Your task to perform on an android device: search for starred emails in the gmail app Image 0: 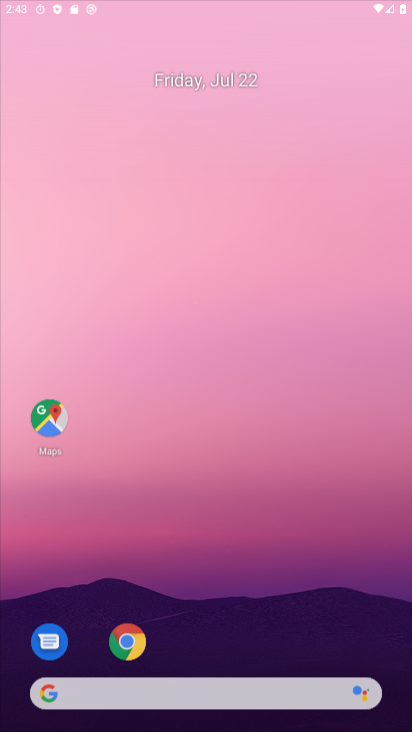
Step 0: press home button
Your task to perform on an android device: search for starred emails in the gmail app Image 1: 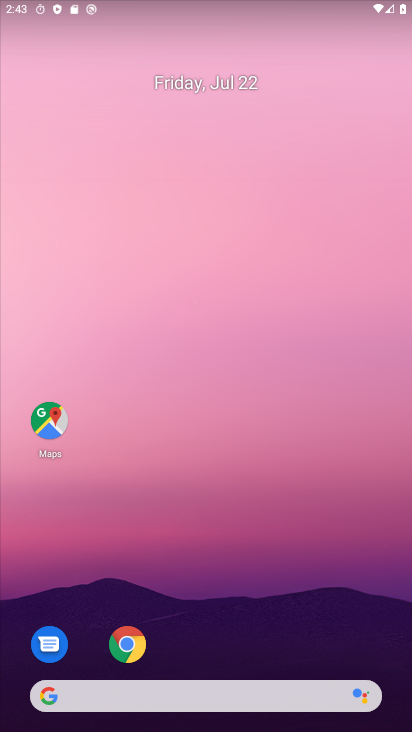
Step 1: drag from (258, 644) to (282, 93)
Your task to perform on an android device: search for starred emails in the gmail app Image 2: 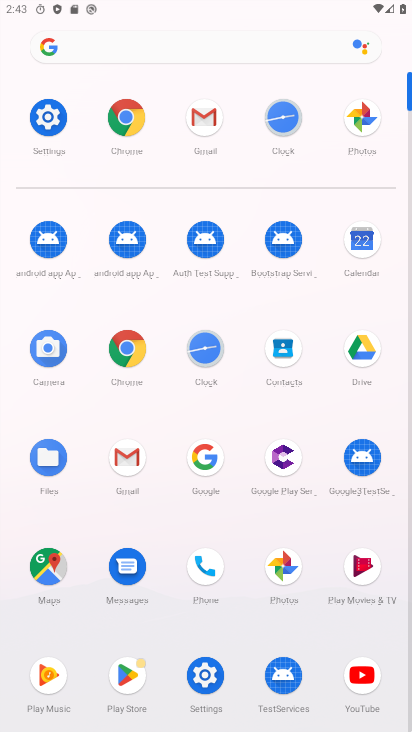
Step 2: click (201, 125)
Your task to perform on an android device: search for starred emails in the gmail app Image 3: 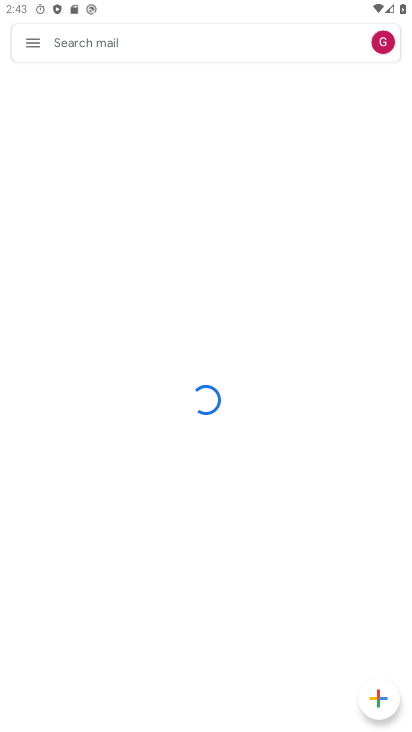
Step 3: click (30, 44)
Your task to perform on an android device: search for starred emails in the gmail app Image 4: 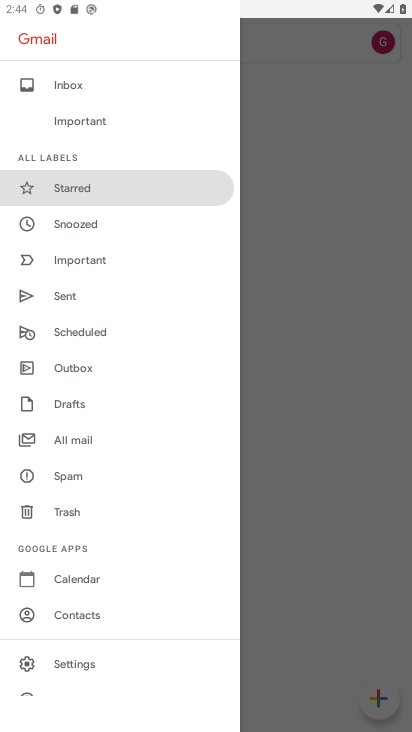
Step 4: click (88, 189)
Your task to perform on an android device: search for starred emails in the gmail app Image 5: 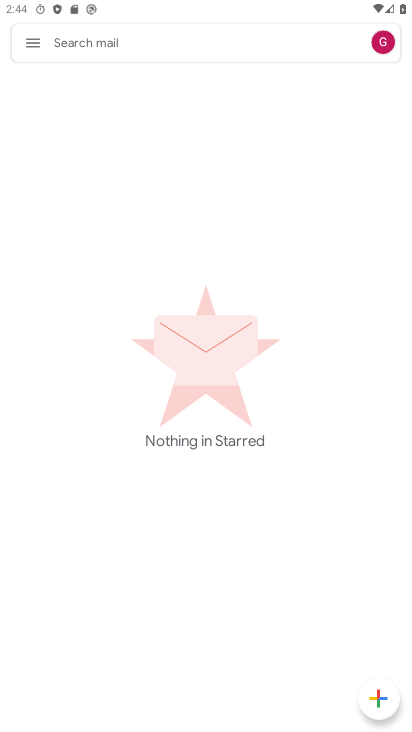
Step 5: task complete